Your task to perform on an android device: Open sound settings Image 0: 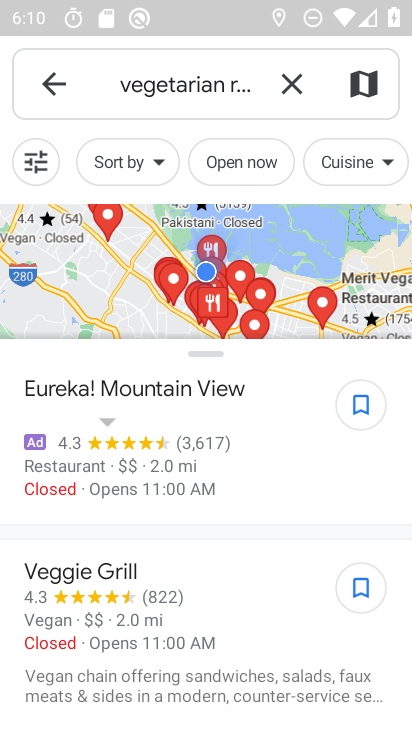
Step 0: press back button
Your task to perform on an android device: Open sound settings Image 1: 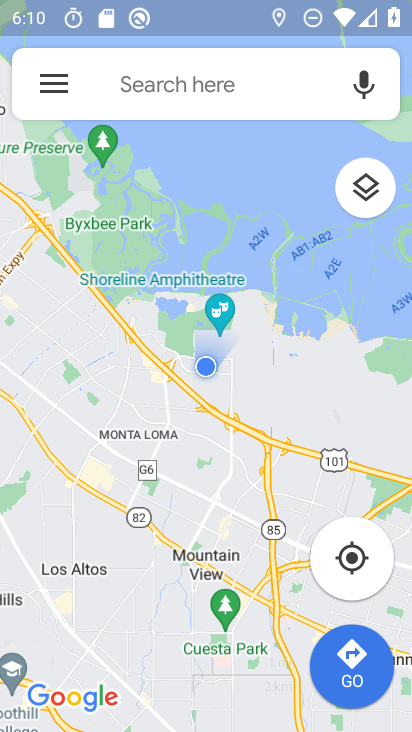
Step 1: press back button
Your task to perform on an android device: Open sound settings Image 2: 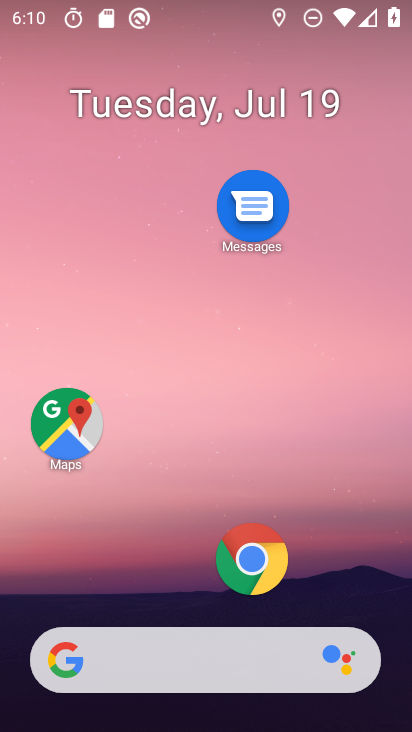
Step 2: drag from (91, 582) to (226, 24)
Your task to perform on an android device: Open sound settings Image 3: 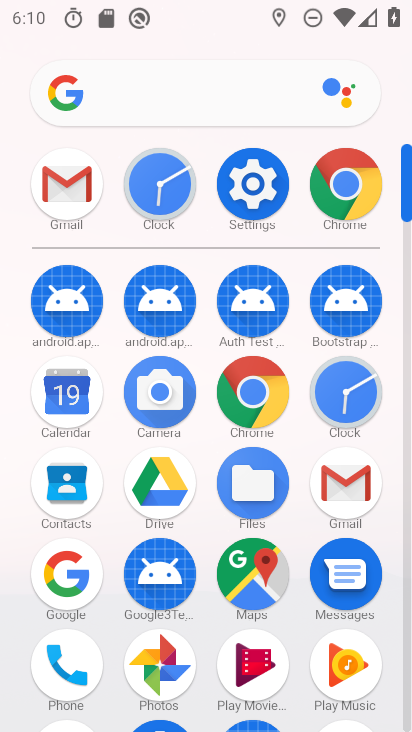
Step 3: click (250, 178)
Your task to perform on an android device: Open sound settings Image 4: 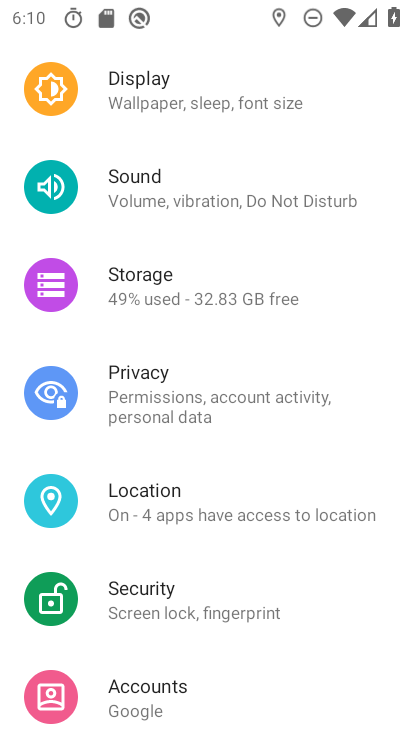
Step 4: drag from (182, 610) to (230, 654)
Your task to perform on an android device: Open sound settings Image 5: 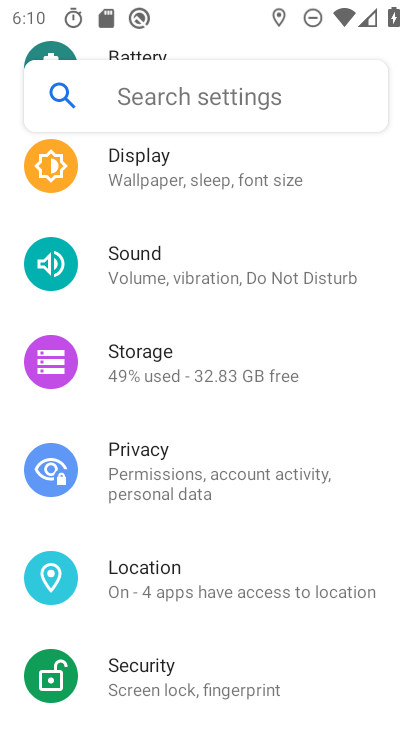
Step 5: click (150, 264)
Your task to perform on an android device: Open sound settings Image 6: 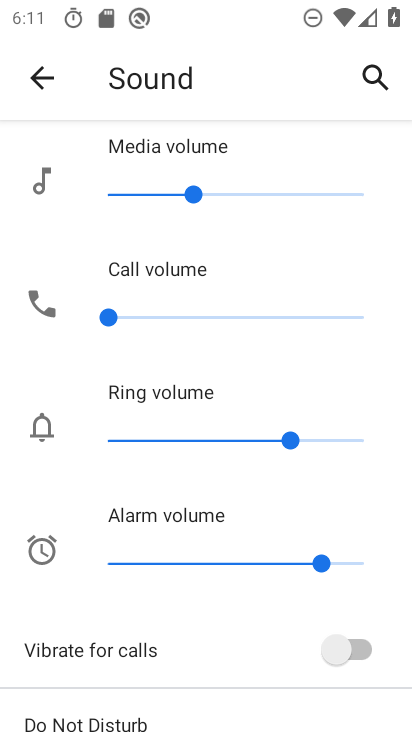
Step 6: task complete